Your task to perform on an android device: Search for corsair k70 on costco, select the first entry, add it to the cart, then select checkout. Image 0: 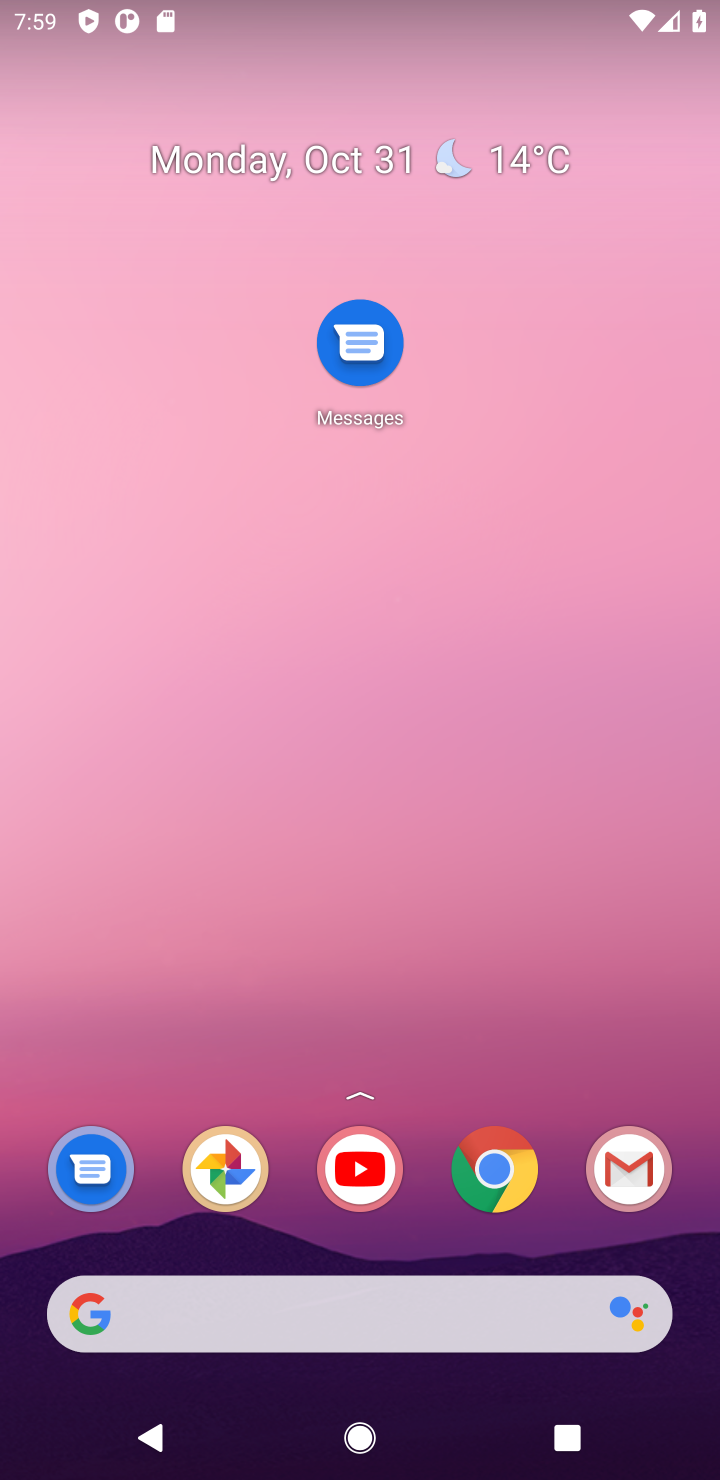
Step 0: drag from (339, 1164) to (339, 278)
Your task to perform on an android device: Search for corsair k70 on costco, select the first entry, add it to the cart, then select checkout. Image 1: 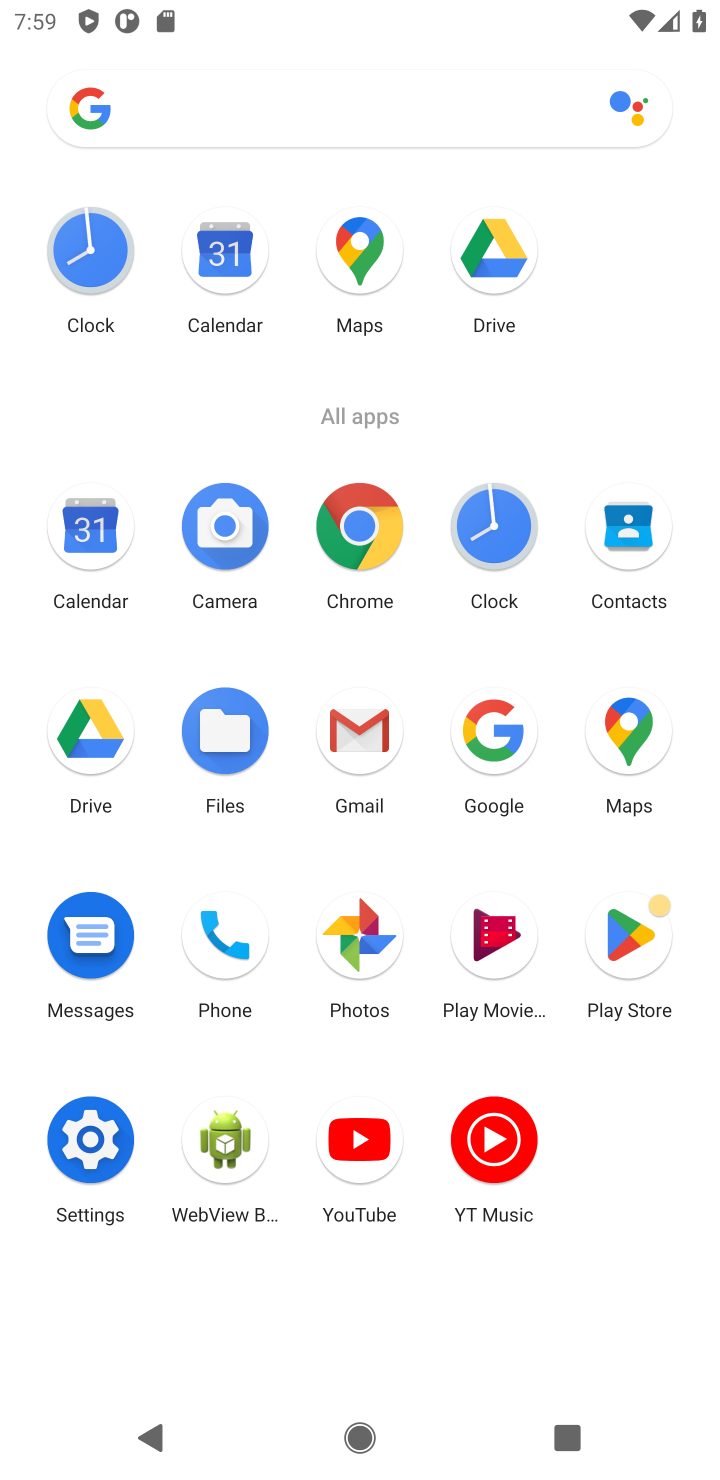
Step 1: click (474, 710)
Your task to perform on an android device: Search for corsair k70 on costco, select the first entry, add it to the cart, then select checkout. Image 2: 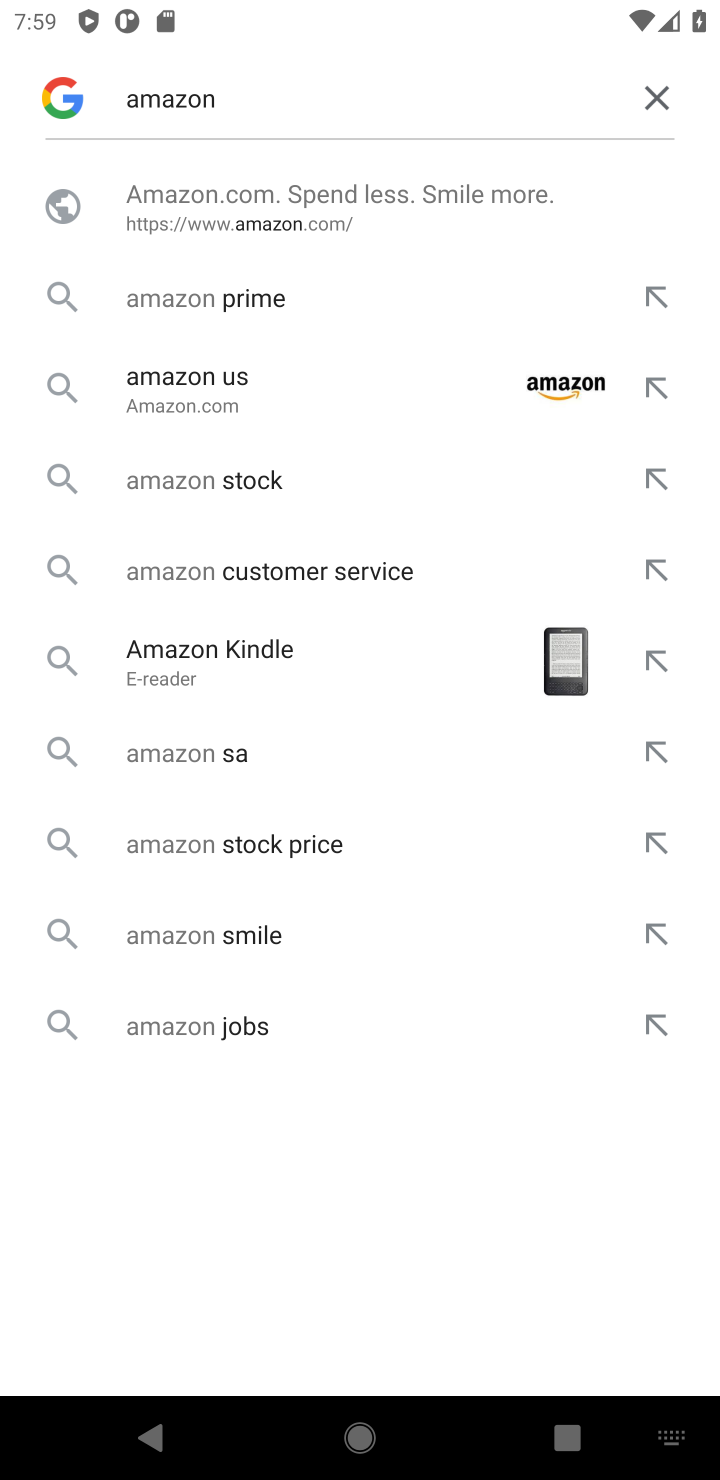
Step 2: click (661, 100)
Your task to perform on an android device: Search for corsair k70 on costco, select the first entry, add it to the cart, then select checkout. Image 3: 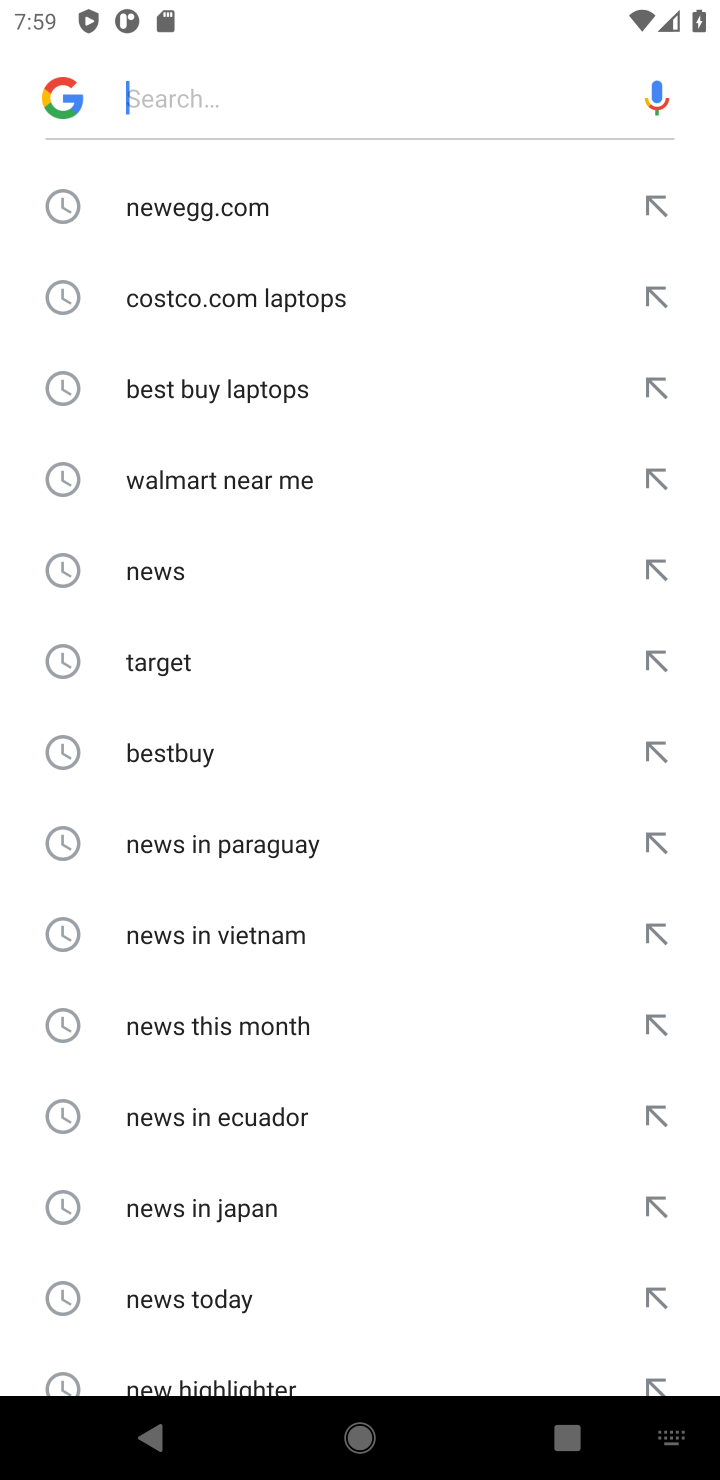
Step 3: click (252, 279)
Your task to perform on an android device: Search for corsair k70 on costco, select the first entry, add it to the cart, then select checkout. Image 4: 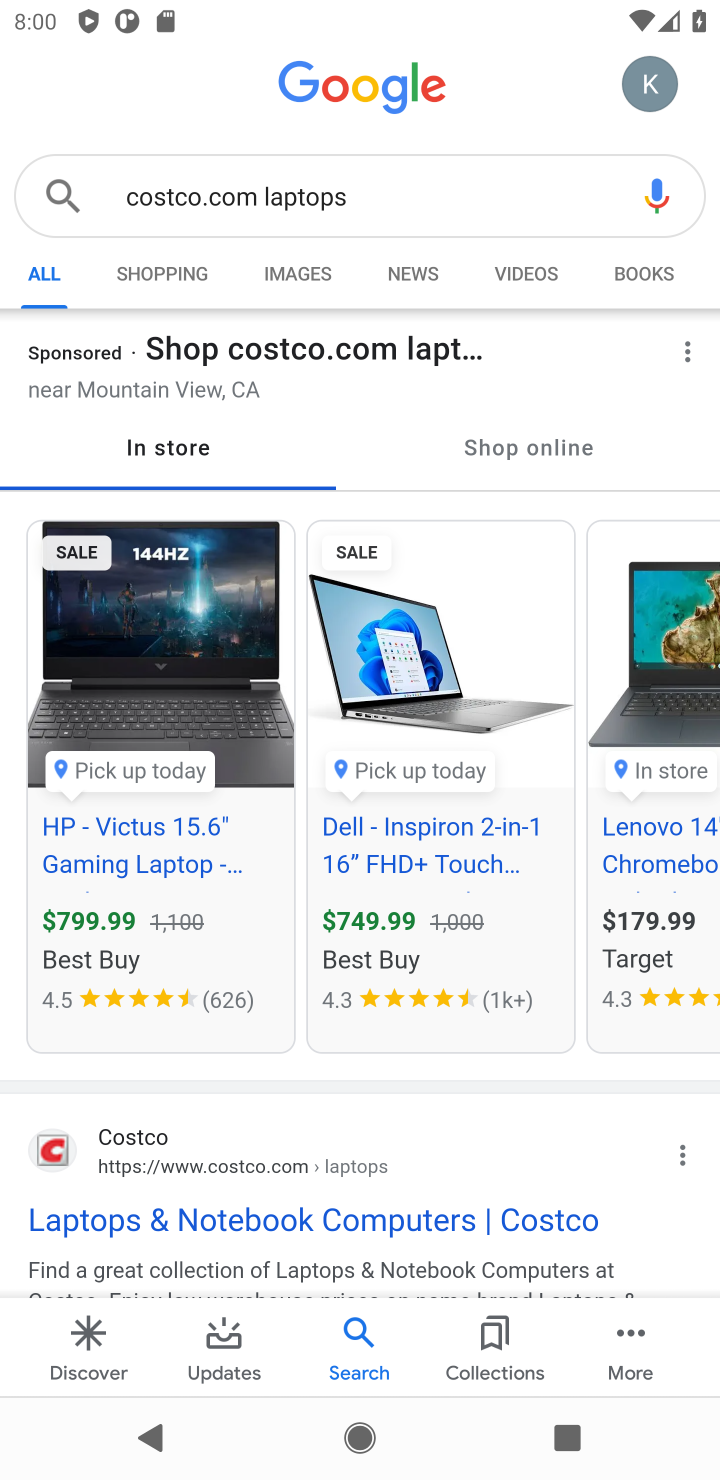
Step 4: click (44, 1148)
Your task to perform on an android device: Search for corsair k70 on costco, select the first entry, add it to the cart, then select checkout. Image 5: 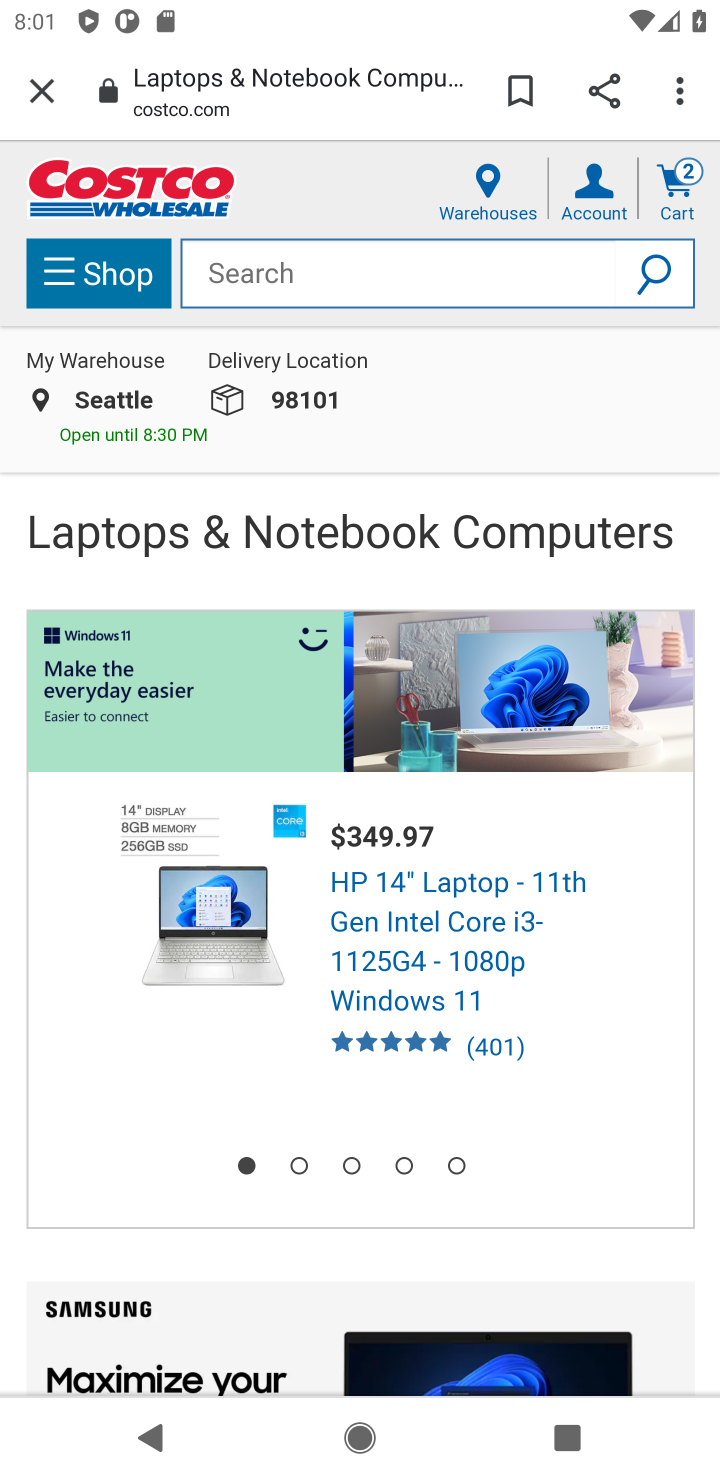
Step 5: click (370, 264)
Your task to perform on an android device: Search for corsair k70 on costco, select the first entry, add it to the cart, then select checkout. Image 6: 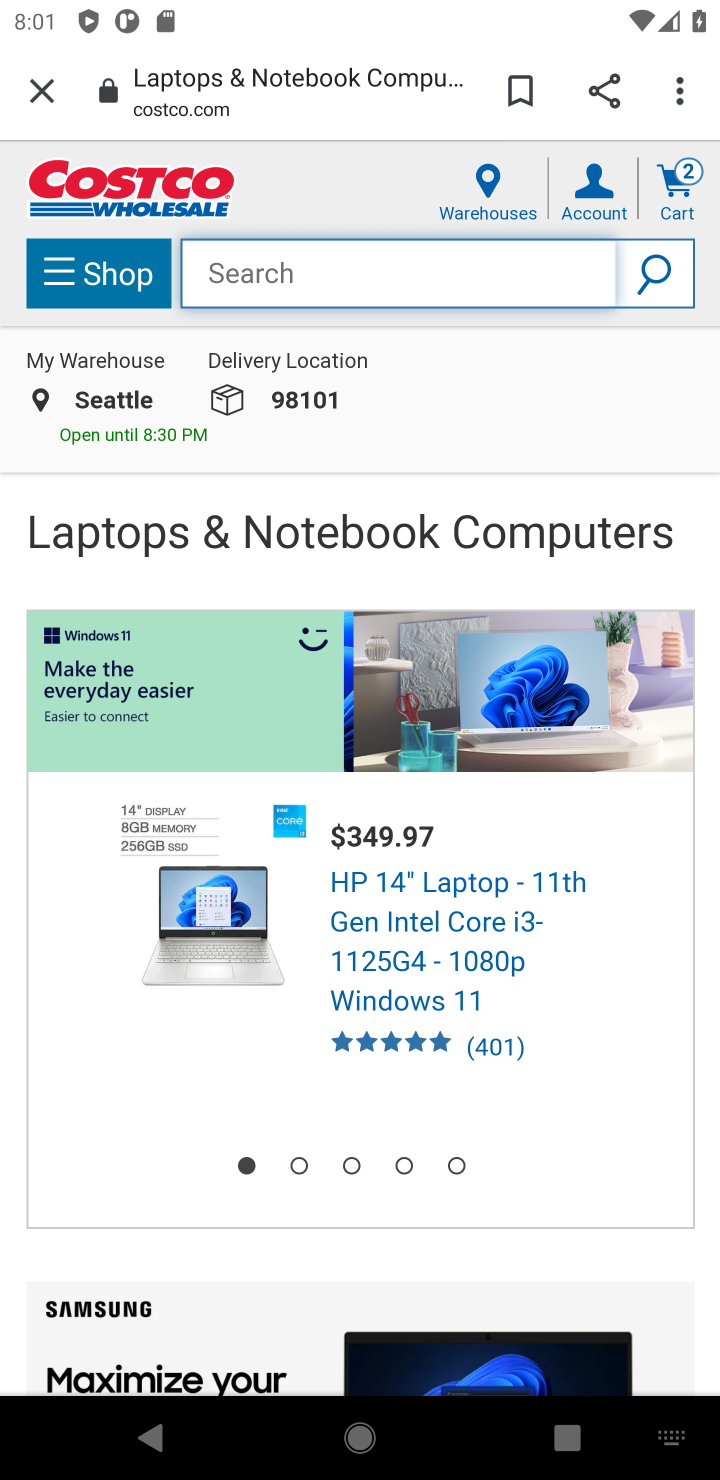
Step 6: type "corsair k70  "
Your task to perform on an android device: Search for corsair k70 on costco, select the first entry, add it to the cart, then select checkout. Image 7: 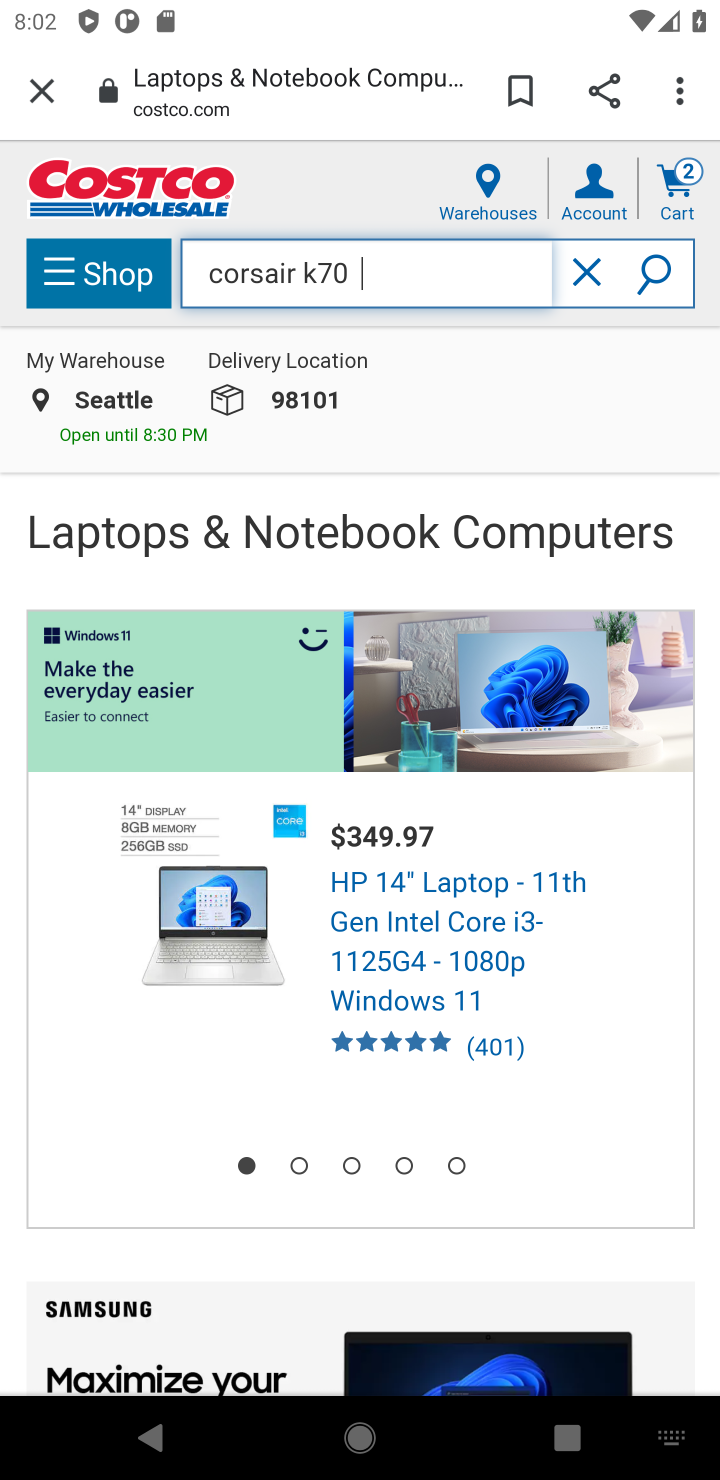
Step 7: click (645, 292)
Your task to perform on an android device: Search for corsair k70 on costco, select the first entry, add it to the cart, then select checkout. Image 8: 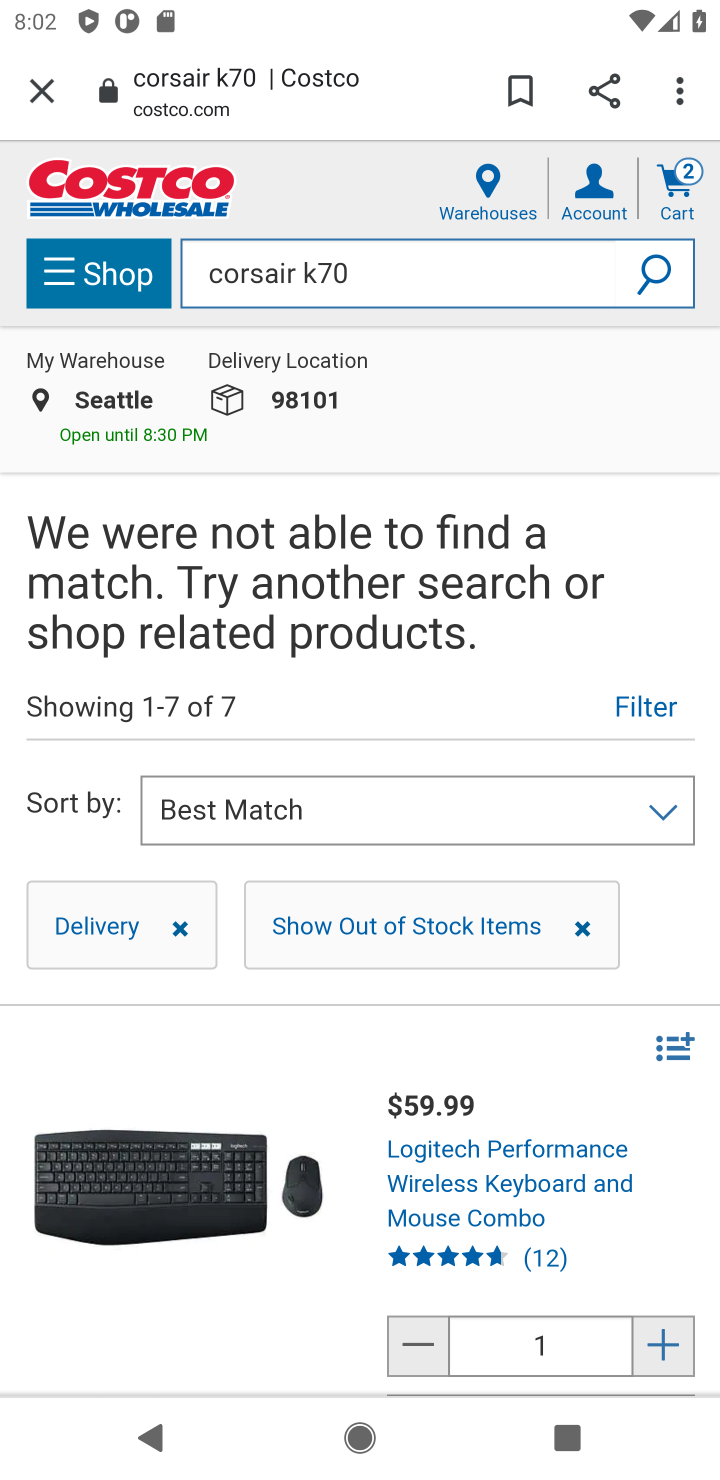
Step 8: drag from (317, 1185) to (372, 569)
Your task to perform on an android device: Search for corsair k70 on costco, select the first entry, add it to the cart, then select checkout. Image 9: 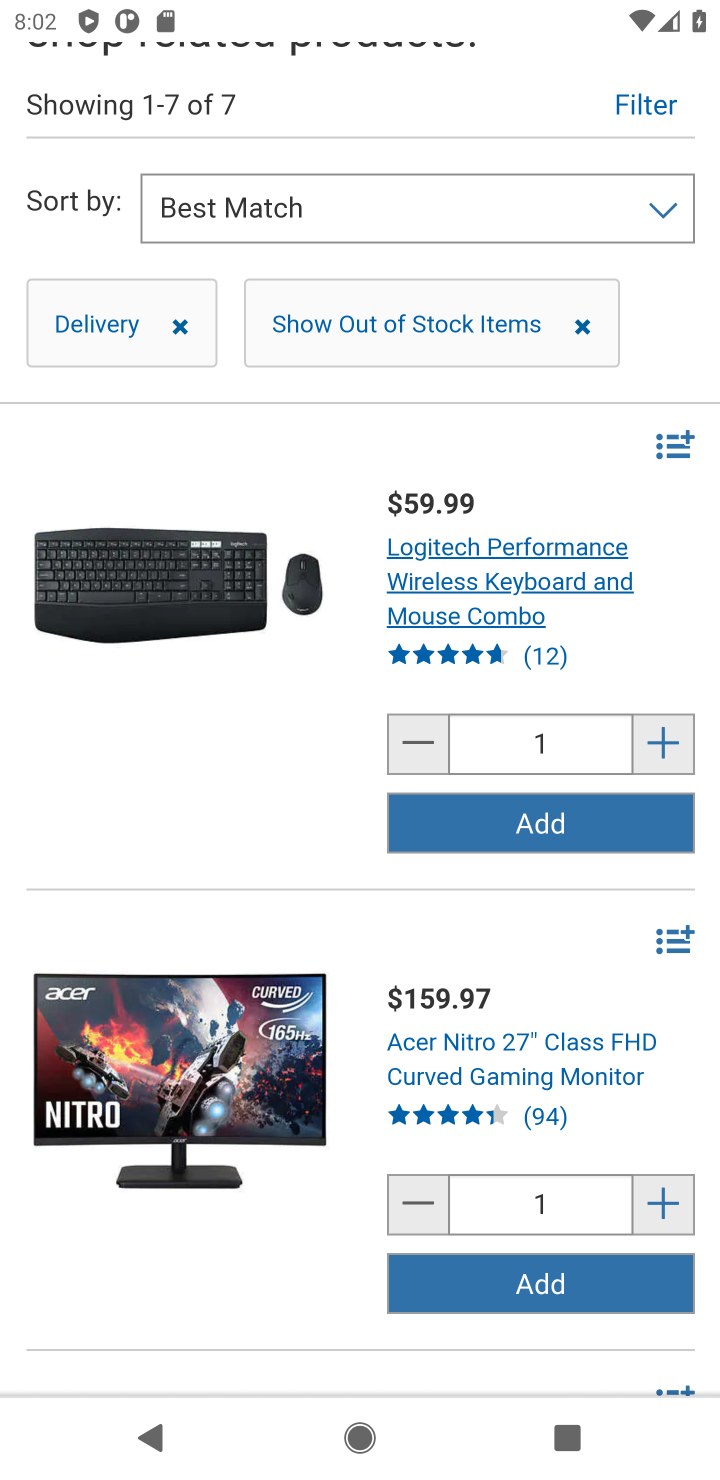
Step 9: drag from (330, 661) to (319, 885)
Your task to perform on an android device: Search for corsair k70 on costco, select the first entry, add it to the cart, then select checkout. Image 10: 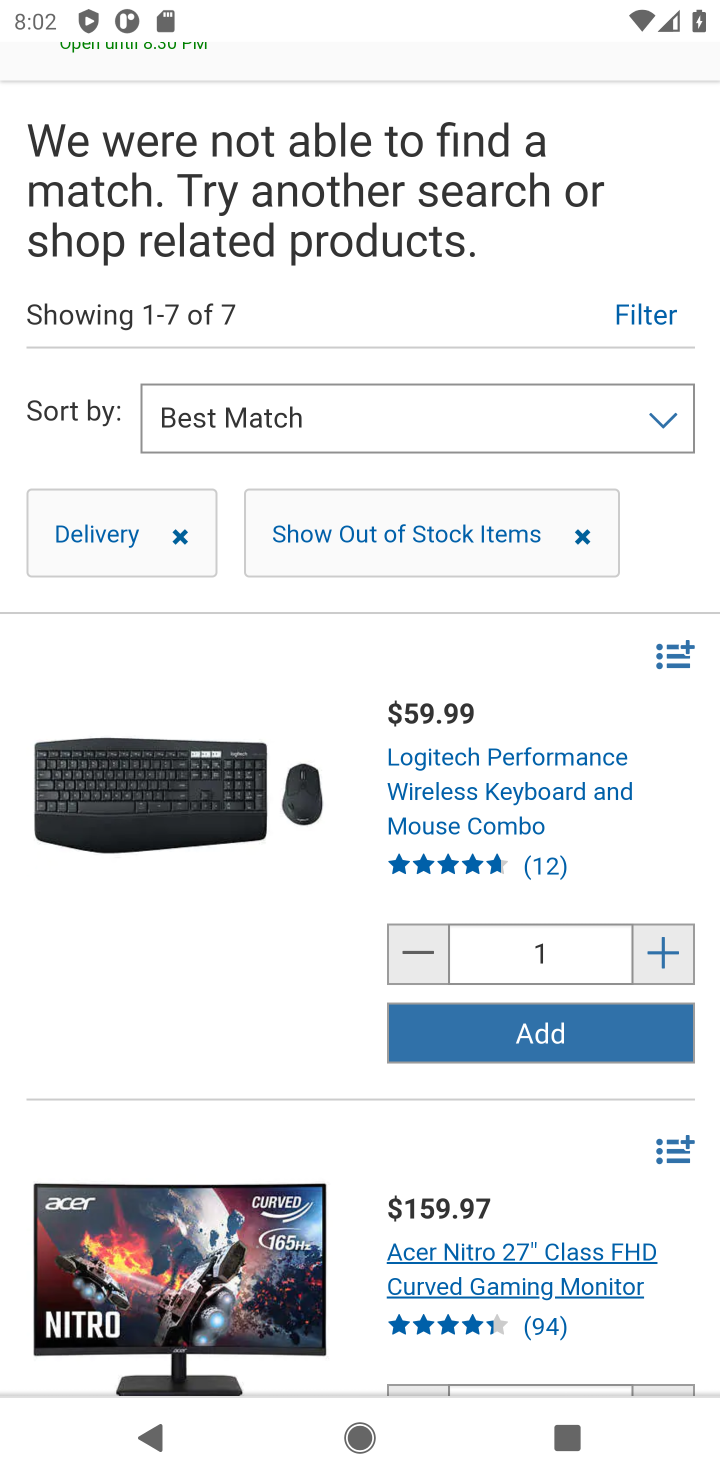
Step 10: drag from (481, 308) to (392, 1054)
Your task to perform on an android device: Search for corsair k70 on costco, select the first entry, add it to the cart, then select checkout. Image 11: 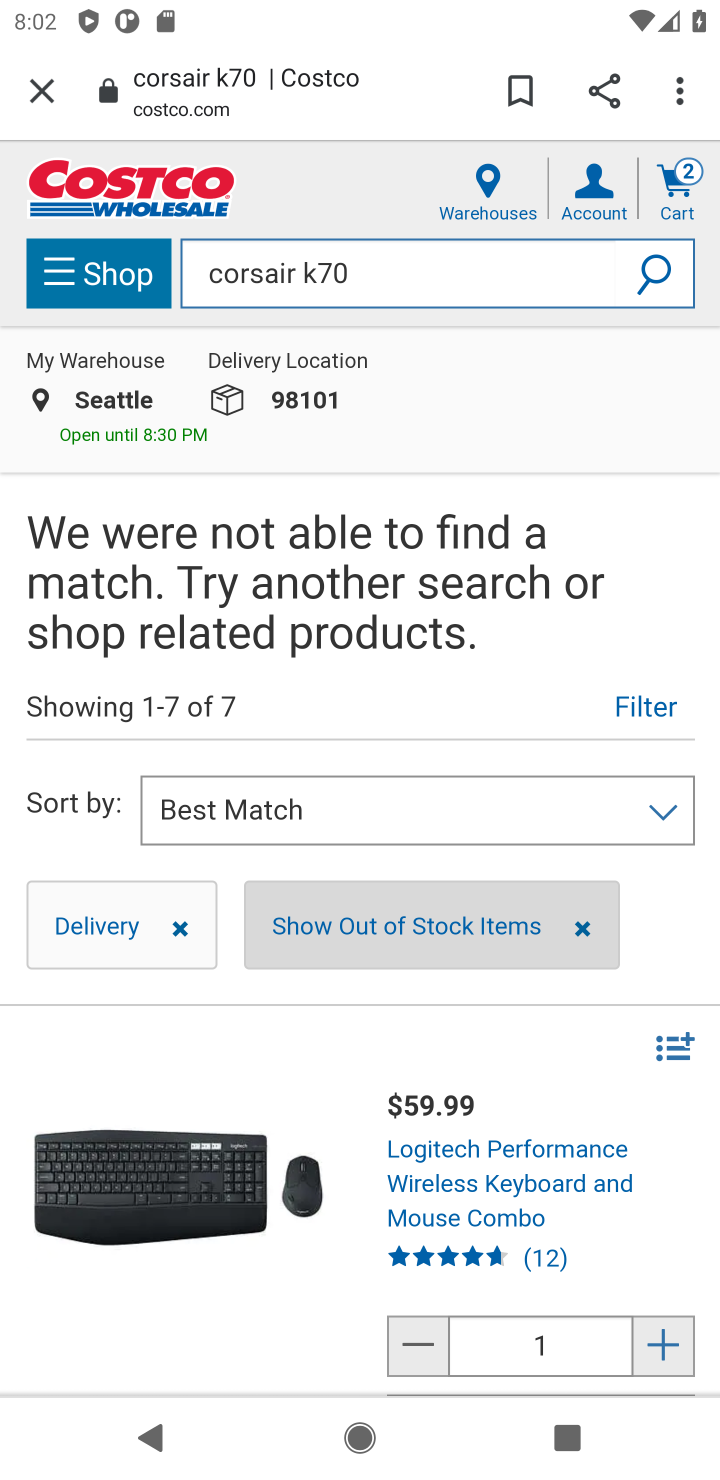
Step 11: click (651, 272)
Your task to perform on an android device: Search for corsair k70 on costco, select the first entry, add it to the cart, then select checkout. Image 12: 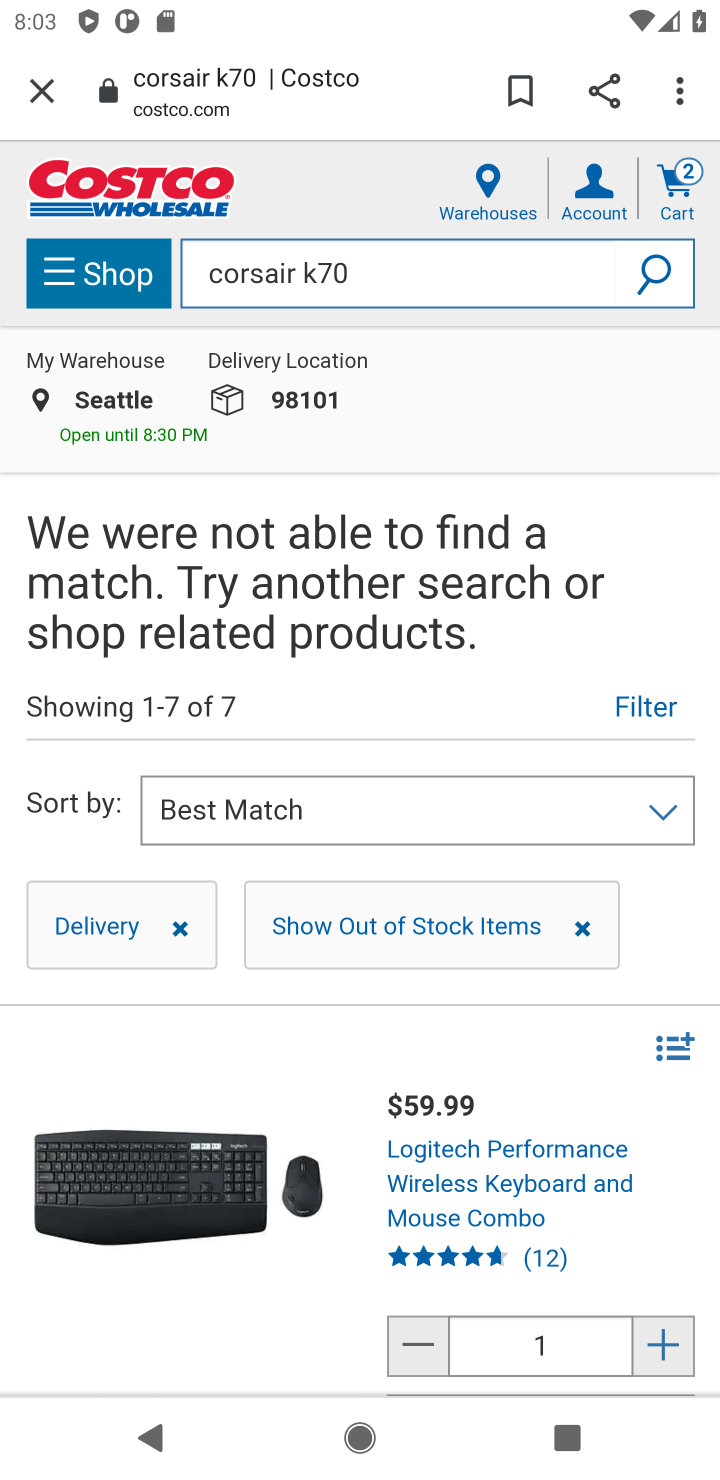
Step 12: task complete